Your task to perform on an android device: Open Yahoo.com Image 0: 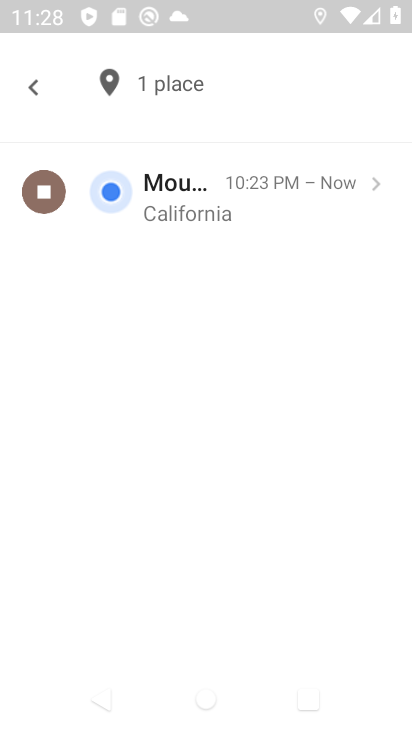
Step 0: press home button
Your task to perform on an android device: Open Yahoo.com Image 1: 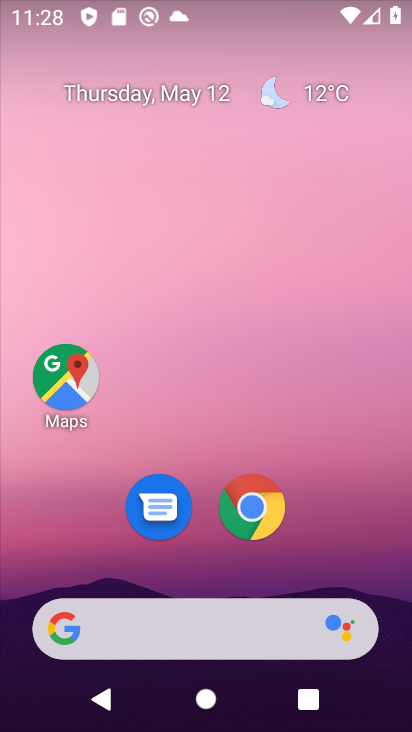
Step 1: click (261, 518)
Your task to perform on an android device: Open Yahoo.com Image 2: 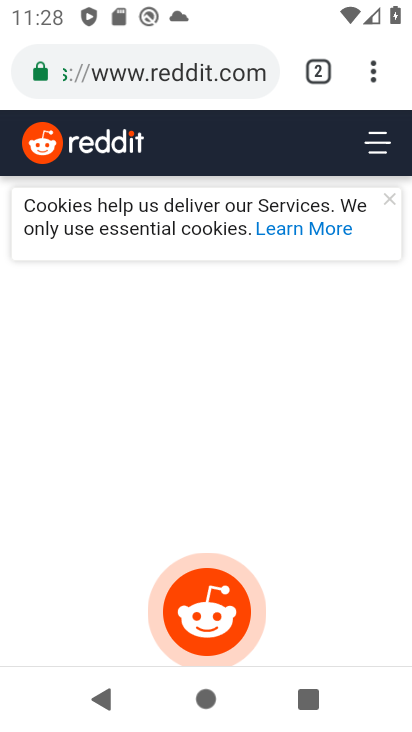
Step 2: click (202, 73)
Your task to perform on an android device: Open Yahoo.com Image 3: 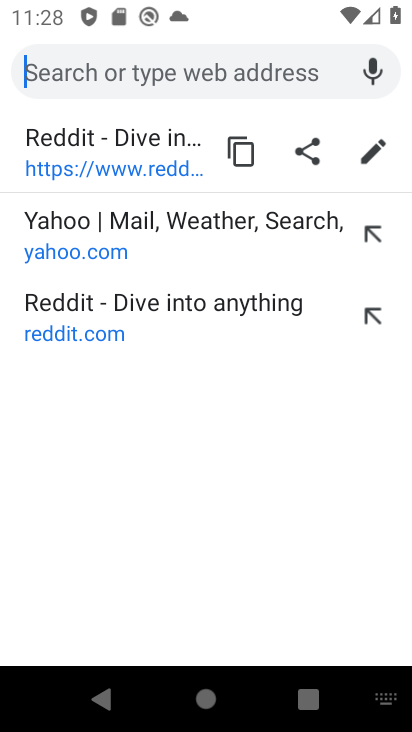
Step 3: type "Yahoo.com"
Your task to perform on an android device: Open Yahoo.com Image 4: 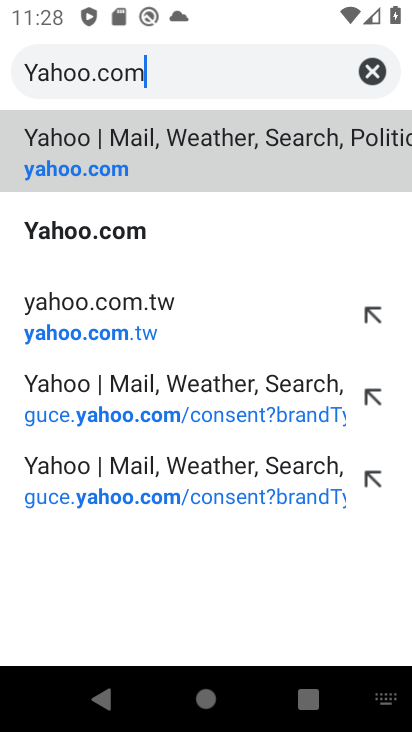
Step 4: click (104, 252)
Your task to perform on an android device: Open Yahoo.com Image 5: 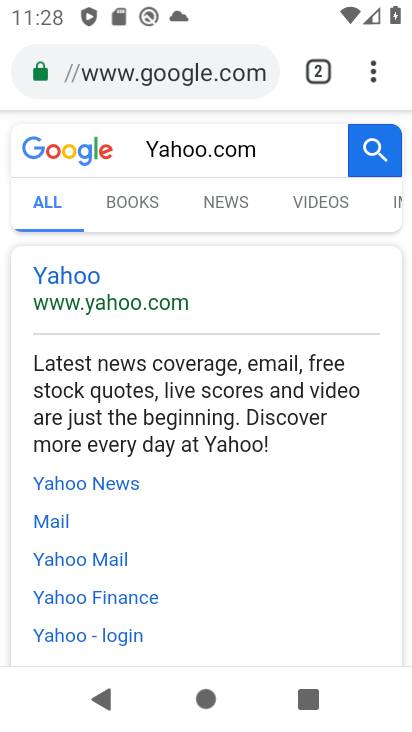
Step 5: task complete